Your task to perform on an android device: find which apps use the phone's location Image 0: 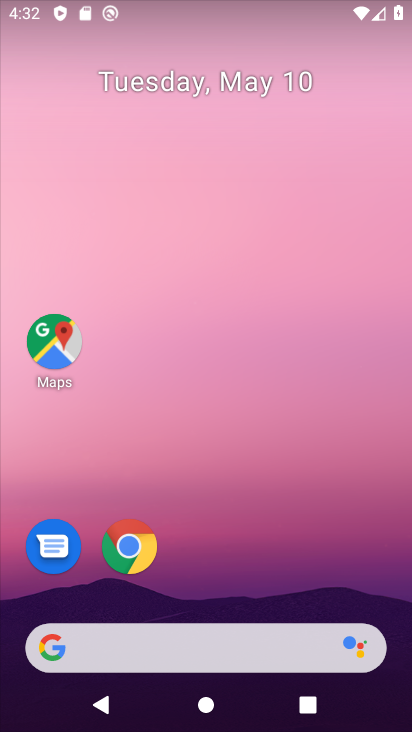
Step 0: drag from (199, 626) to (310, 100)
Your task to perform on an android device: find which apps use the phone's location Image 1: 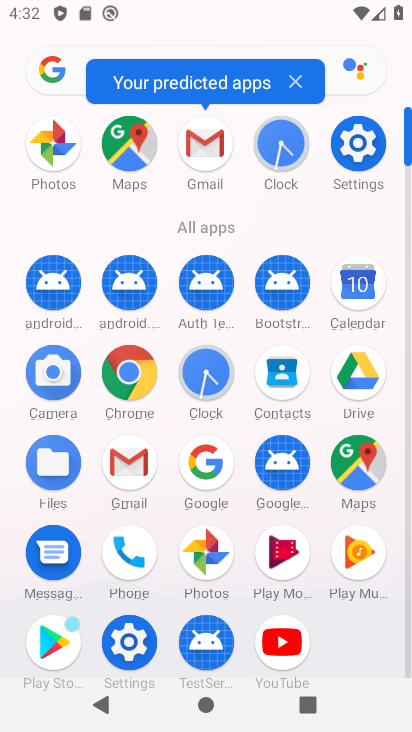
Step 1: drag from (234, 512) to (267, 357)
Your task to perform on an android device: find which apps use the phone's location Image 2: 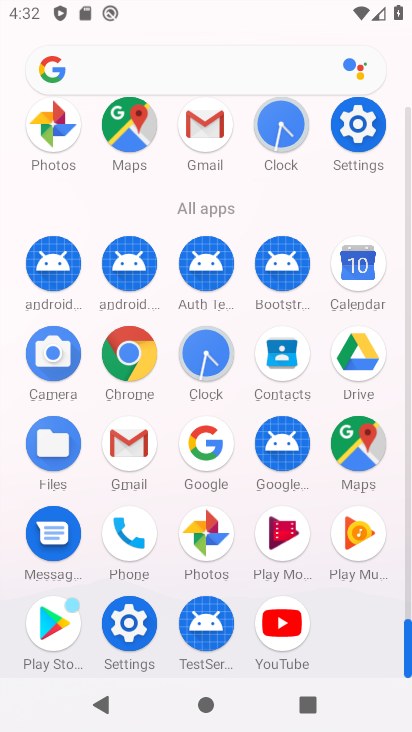
Step 2: click (124, 622)
Your task to perform on an android device: find which apps use the phone's location Image 3: 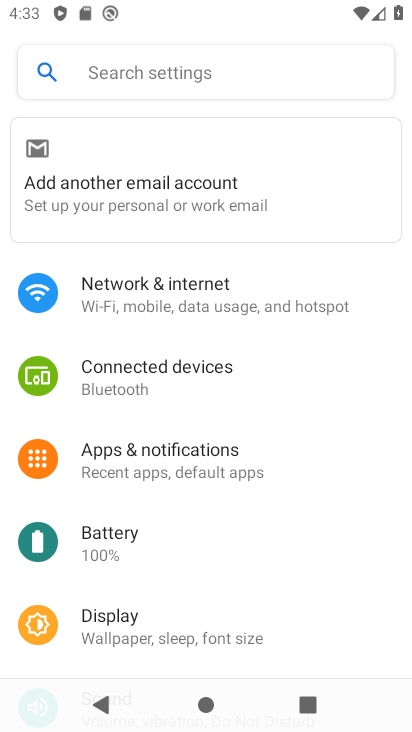
Step 3: drag from (251, 575) to (315, 253)
Your task to perform on an android device: find which apps use the phone's location Image 4: 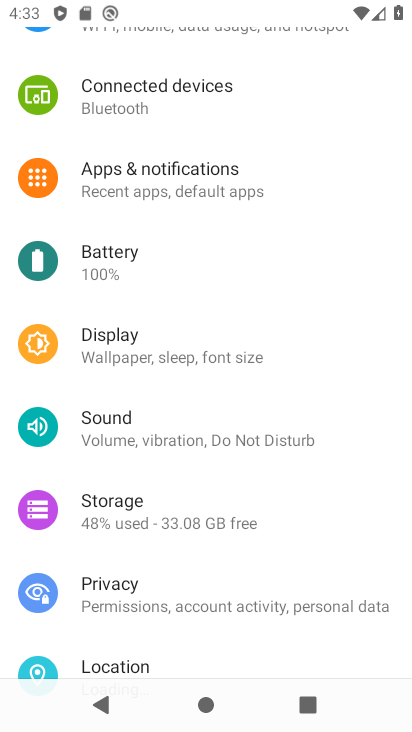
Step 4: drag from (214, 582) to (271, 279)
Your task to perform on an android device: find which apps use the phone's location Image 5: 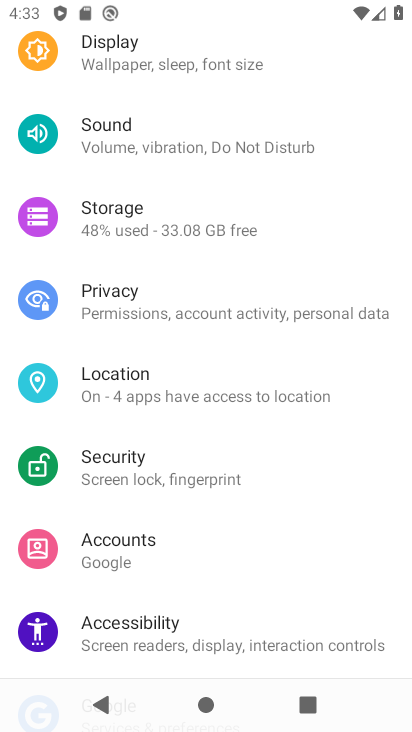
Step 5: click (167, 396)
Your task to perform on an android device: find which apps use the phone's location Image 6: 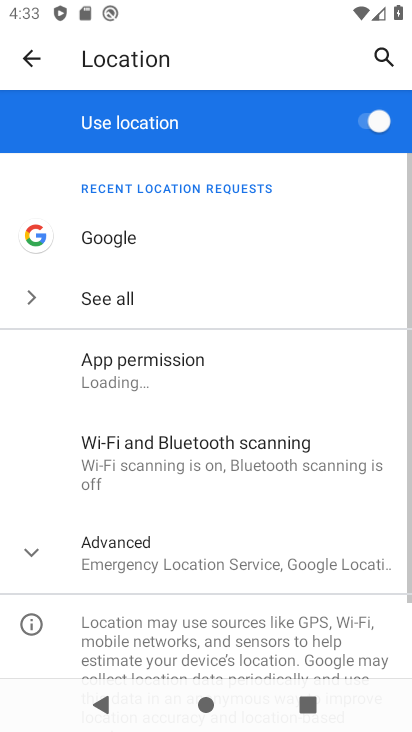
Step 6: click (171, 384)
Your task to perform on an android device: find which apps use the phone's location Image 7: 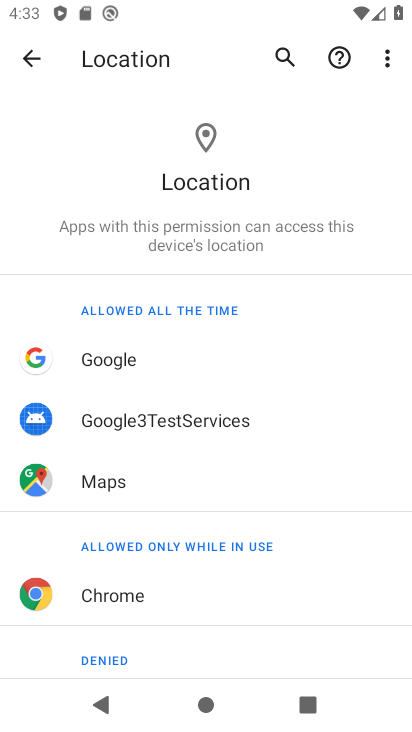
Step 7: task complete